Your task to perform on an android device: show emergency info Image 0: 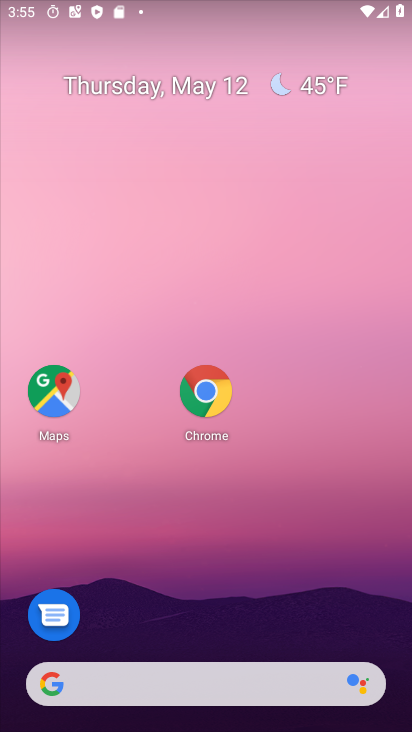
Step 0: drag from (198, 607) to (212, 67)
Your task to perform on an android device: show emergency info Image 1: 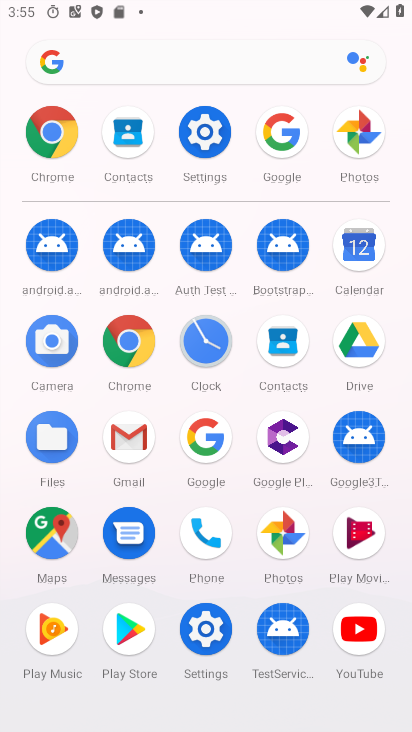
Step 1: click (197, 127)
Your task to perform on an android device: show emergency info Image 2: 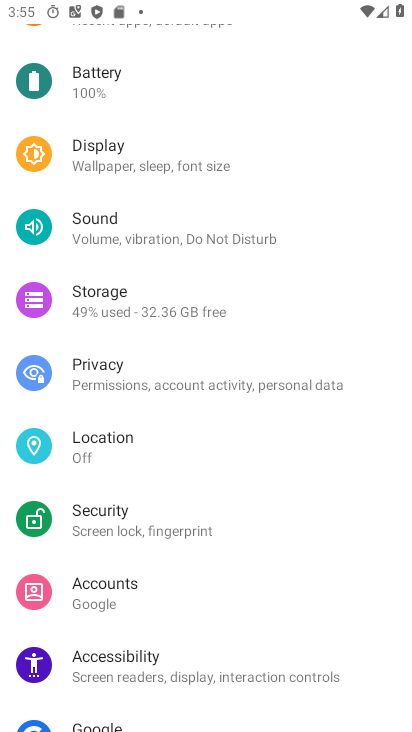
Step 2: drag from (203, 243) to (212, 621)
Your task to perform on an android device: show emergency info Image 3: 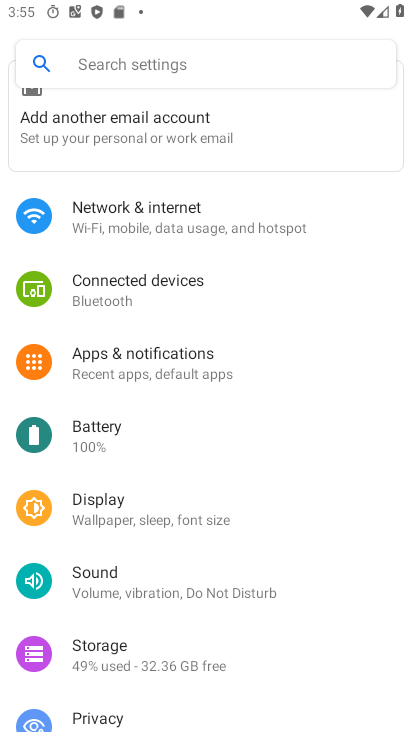
Step 3: drag from (187, 527) to (187, 344)
Your task to perform on an android device: show emergency info Image 4: 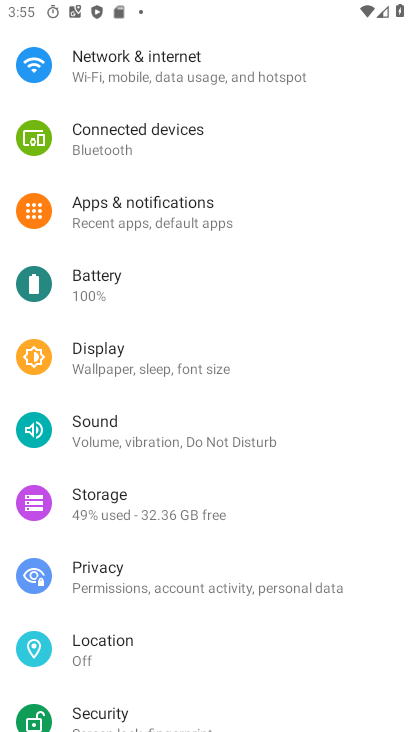
Step 4: drag from (174, 585) to (206, 81)
Your task to perform on an android device: show emergency info Image 5: 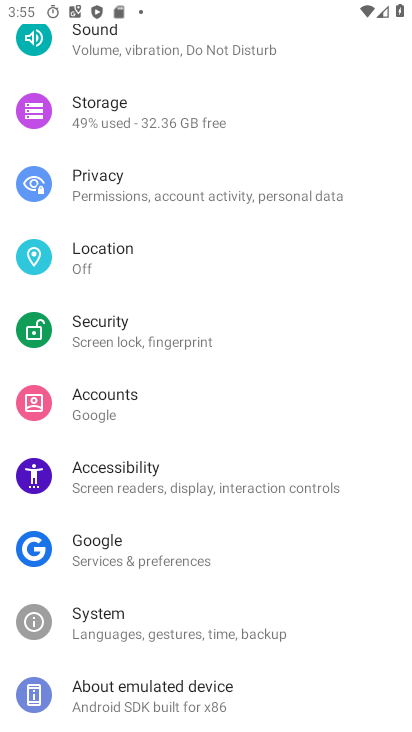
Step 5: drag from (182, 687) to (184, 479)
Your task to perform on an android device: show emergency info Image 6: 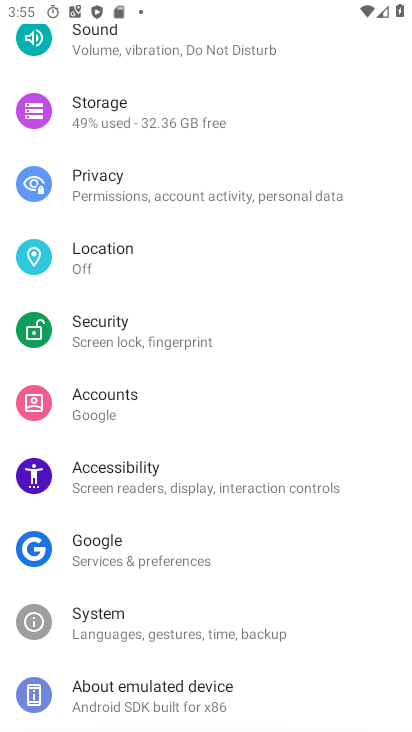
Step 6: click (158, 695)
Your task to perform on an android device: show emergency info Image 7: 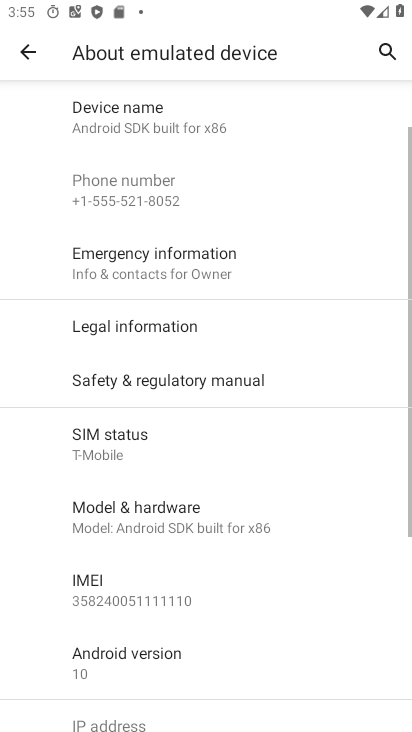
Step 7: drag from (171, 591) to (207, 209)
Your task to perform on an android device: show emergency info Image 8: 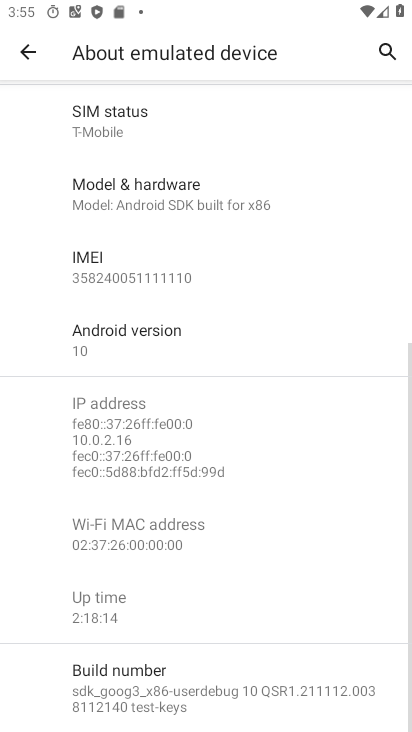
Step 8: drag from (185, 628) to (204, 526)
Your task to perform on an android device: show emergency info Image 9: 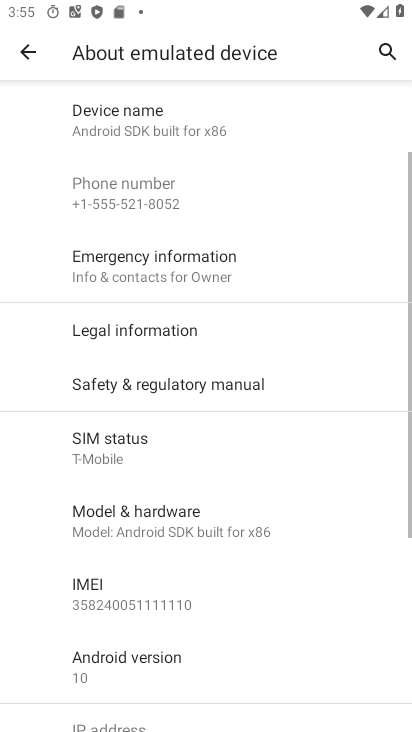
Step 9: click (163, 260)
Your task to perform on an android device: show emergency info Image 10: 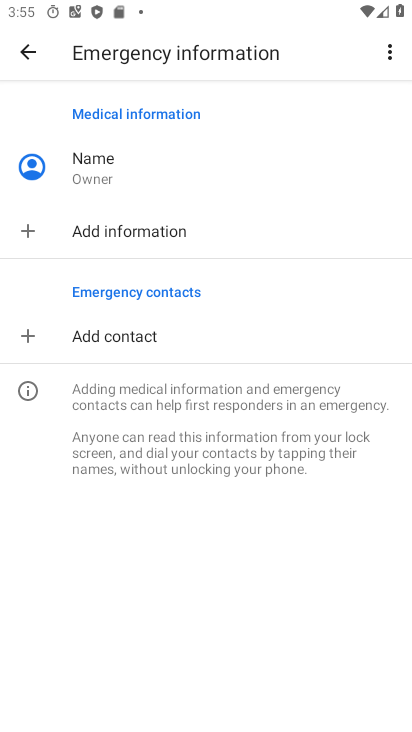
Step 10: task complete